Your task to perform on an android device: turn on data saver in the chrome app Image 0: 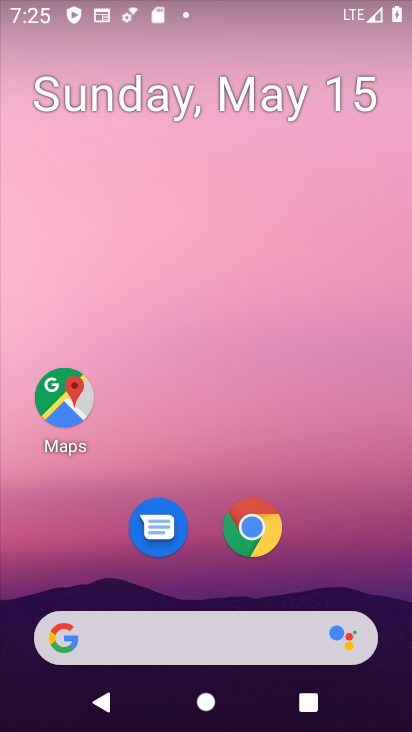
Step 0: drag from (323, 546) to (346, 12)
Your task to perform on an android device: turn on data saver in the chrome app Image 1: 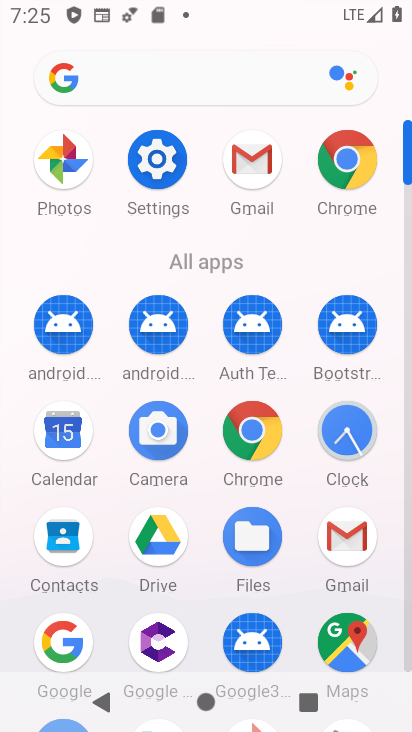
Step 1: click (352, 182)
Your task to perform on an android device: turn on data saver in the chrome app Image 2: 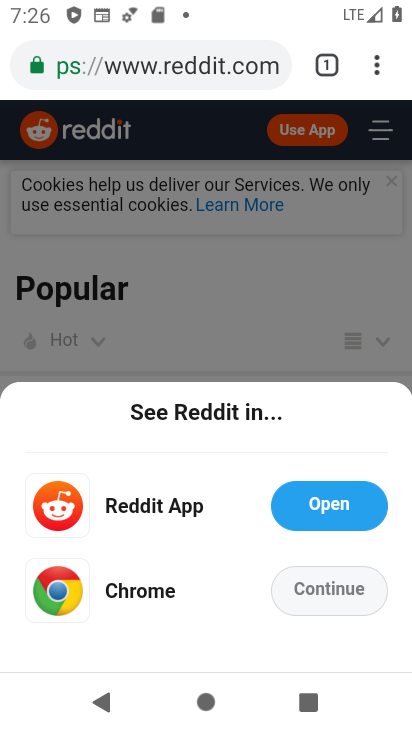
Step 2: drag from (386, 72) to (170, 583)
Your task to perform on an android device: turn on data saver in the chrome app Image 3: 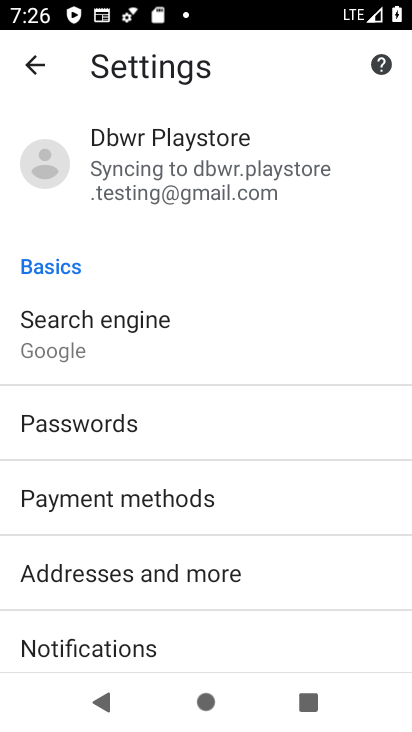
Step 3: drag from (135, 600) to (162, 139)
Your task to perform on an android device: turn on data saver in the chrome app Image 4: 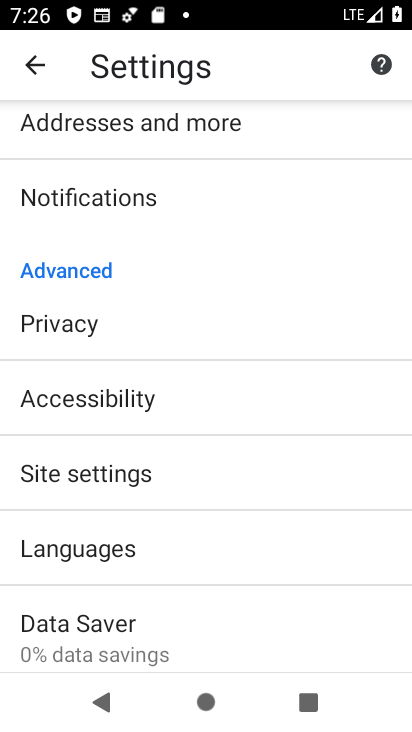
Step 4: drag from (148, 562) to (230, 111)
Your task to perform on an android device: turn on data saver in the chrome app Image 5: 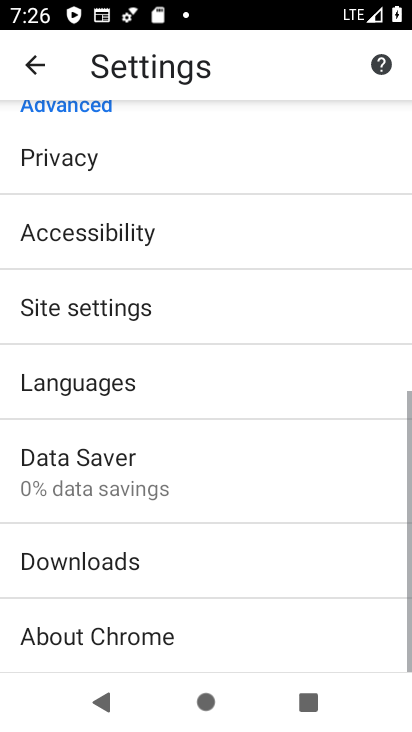
Step 5: click (170, 490)
Your task to perform on an android device: turn on data saver in the chrome app Image 6: 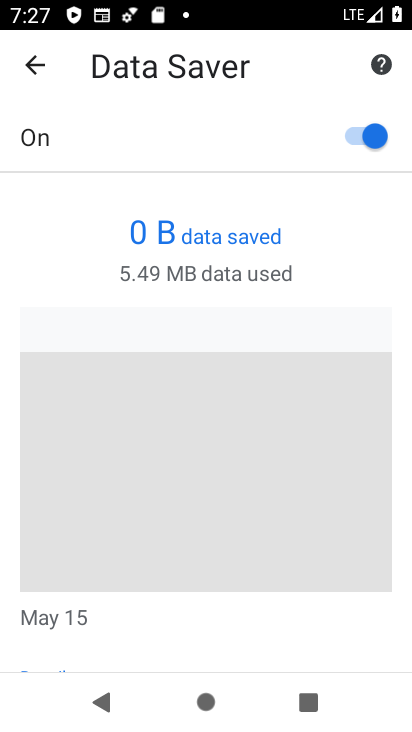
Step 6: task complete